Your task to perform on an android device: turn off wifi Image 0: 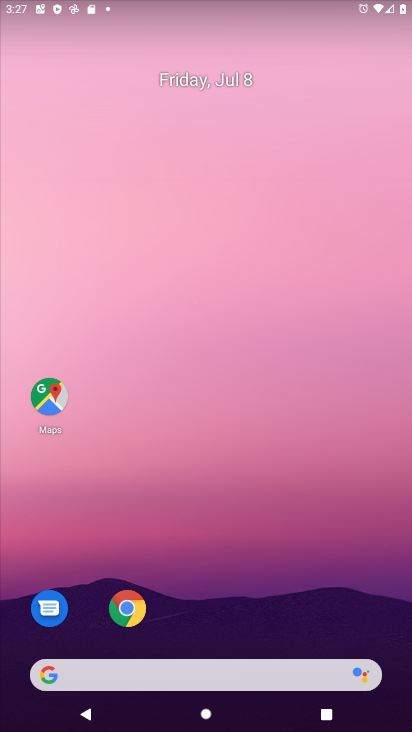
Step 0: drag from (153, 571) to (219, 25)
Your task to perform on an android device: turn off wifi Image 1: 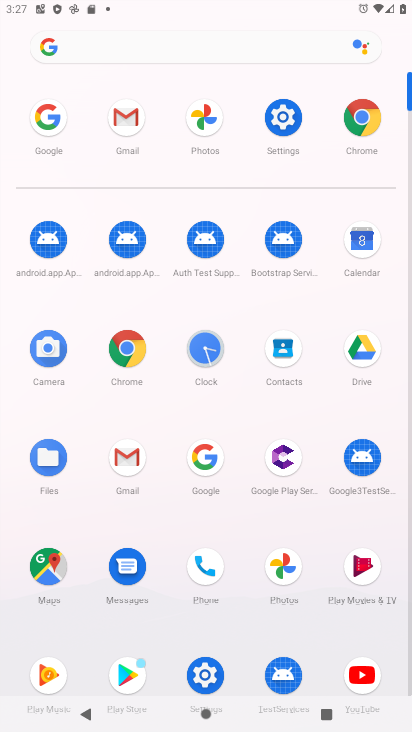
Step 1: click (286, 117)
Your task to perform on an android device: turn off wifi Image 2: 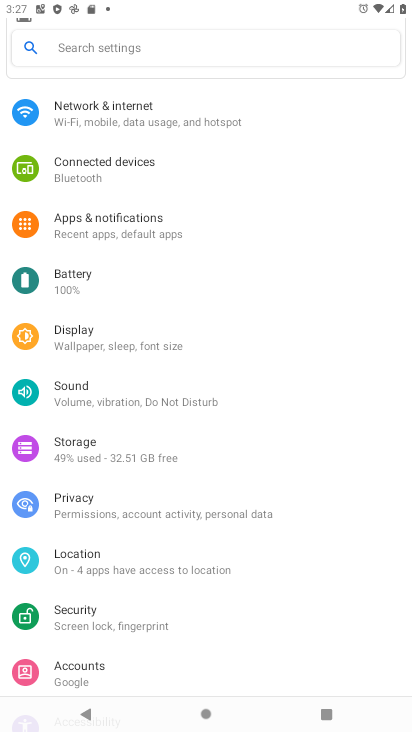
Step 2: click (167, 123)
Your task to perform on an android device: turn off wifi Image 3: 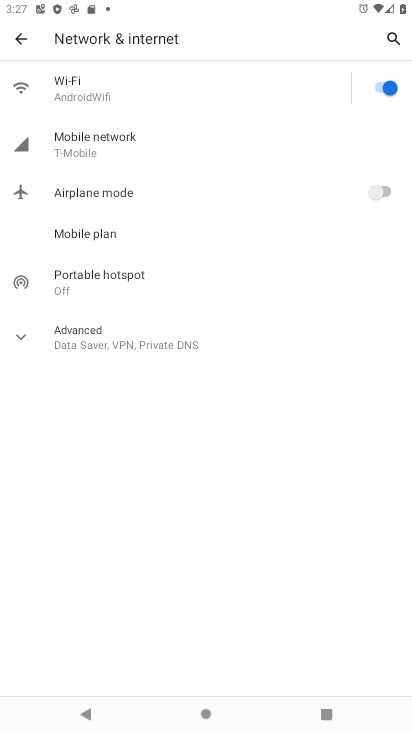
Step 3: click (384, 87)
Your task to perform on an android device: turn off wifi Image 4: 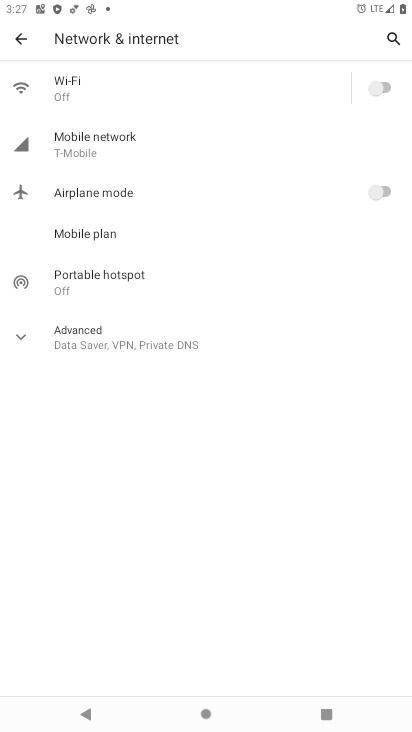
Step 4: task complete